Your task to perform on an android device: What's the weather going to be this weekend? Image 0: 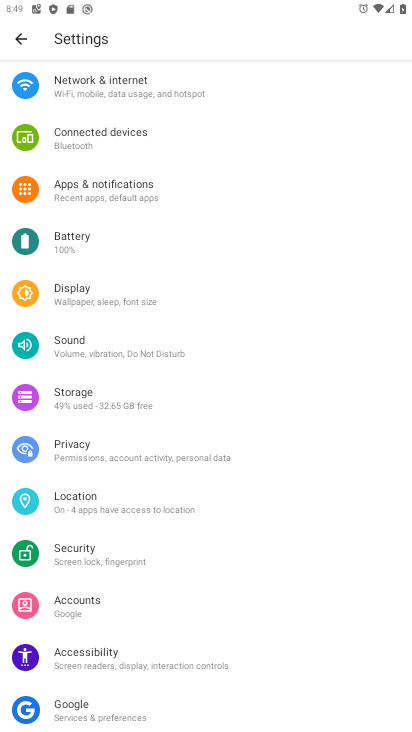
Step 0: press home button
Your task to perform on an android device: What's the weather going to be this weekend? Image 1: 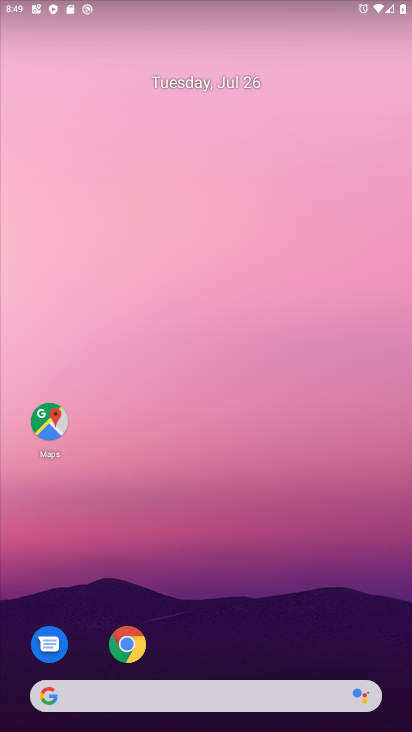
Step 1: click (128, 648)
Your task to perform on an android device: What's the weather going to be this weekend? Image 2: 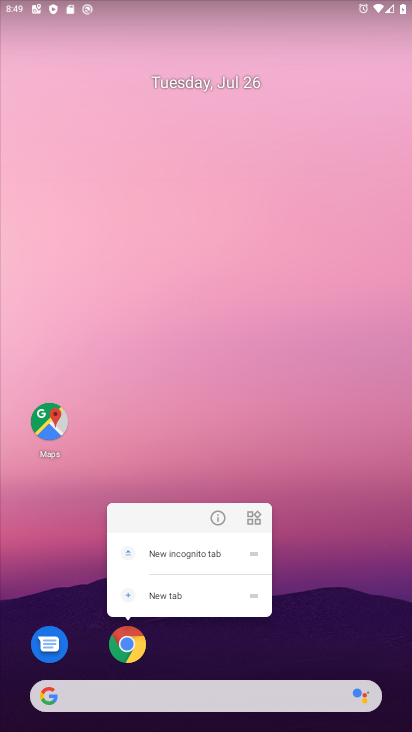
Step 2: click (126, 661)
Your task to perform on an android device: What's the weather going to be this weekend? Image 3: 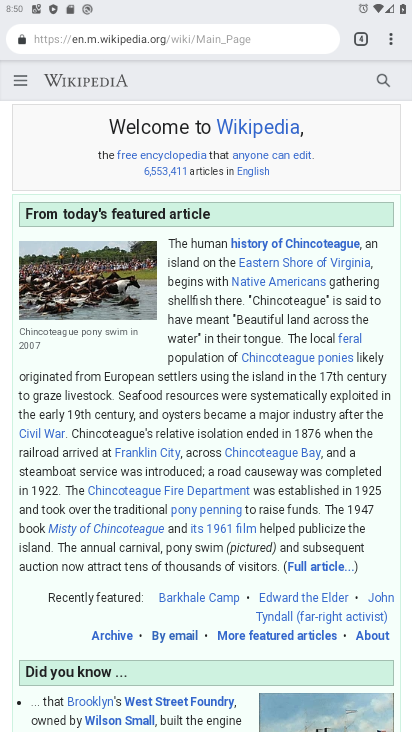
Step 3: click (399, 38)
Your task to perform on an android device: What's the weather going to be this weekend? Image 4: 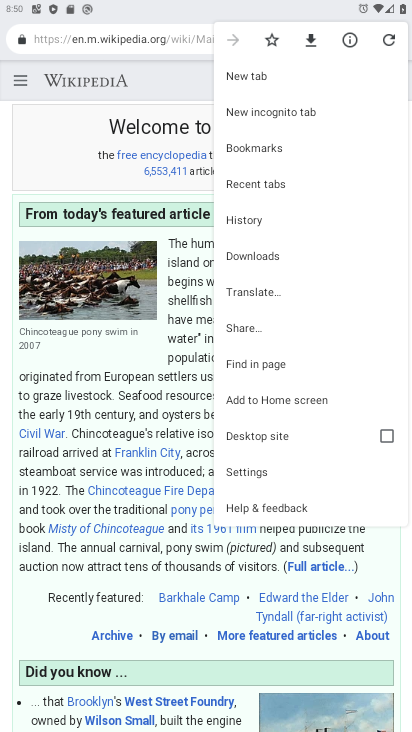
Step 4: click (251, 70)
Your task to perform on an android device: What's the weather going to be this weekend? Image 5: 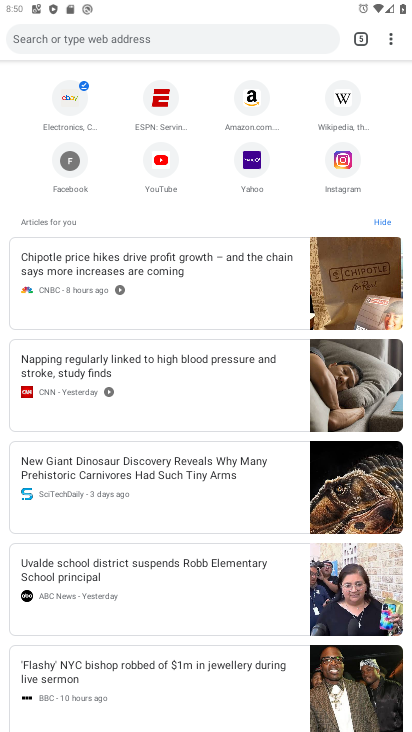
Step 5: click (138, 36)
Your task to perform on an android device: What's the weather going to be this weekend? Image 6: 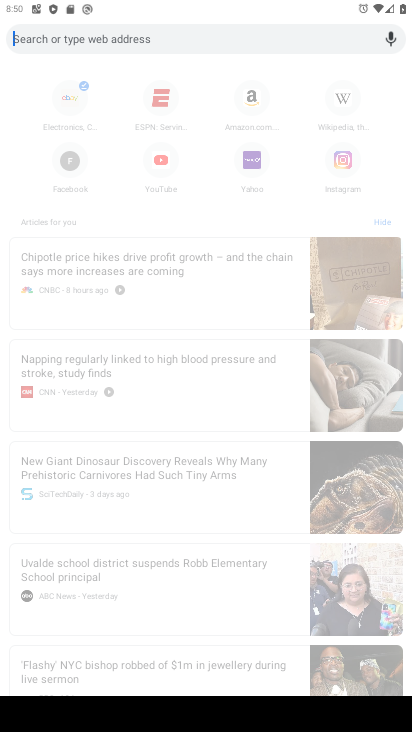
Step 6: type "What's the weather going to be this weekend? "
Your task to perform on an android device: What's the weather going to be this weekend? Image 7: 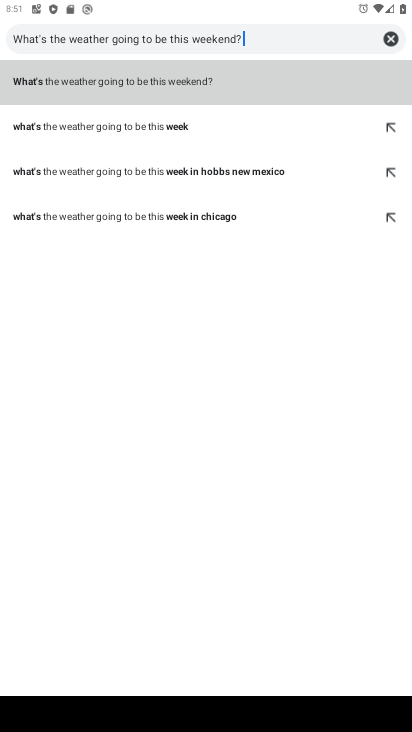
Step 7: click (271, 80)
Your task to perform on an android device: What's the weather going to be this weekend? Image 8: 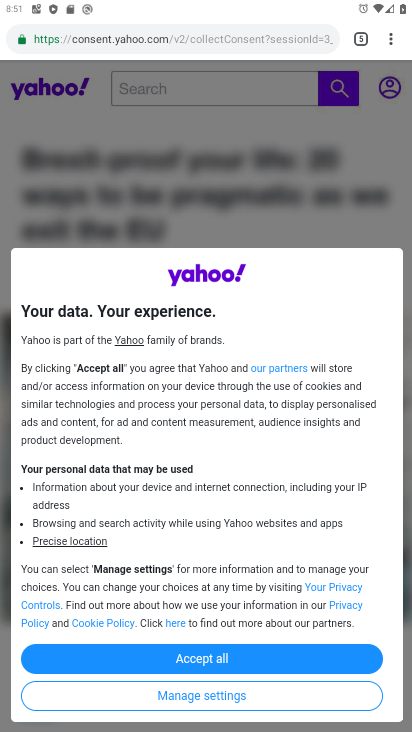
Step 8: task complete